Your task to perform on an android device: make emails show in primary in the gmail app Image 0: 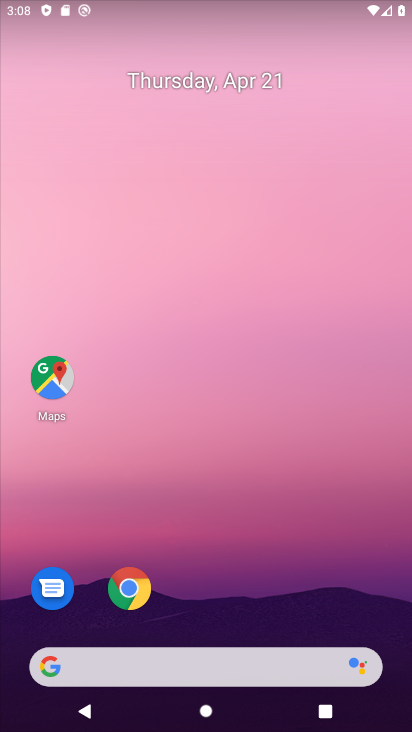
Step 0: drag from (245, 667) to (292, 43)
Your task to perform on an android device: make emails show in primary in the gmail app Image 1: 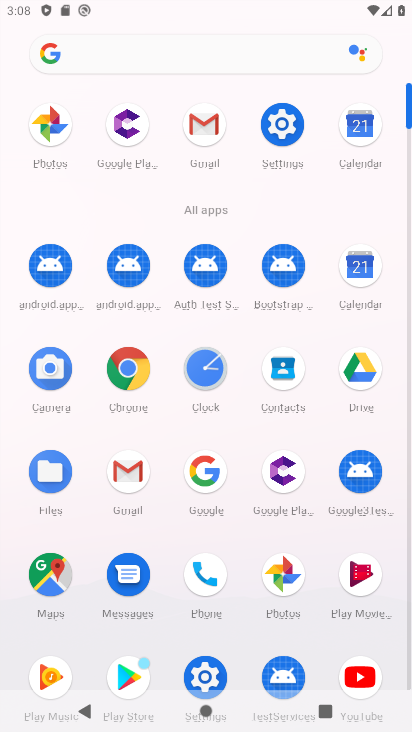
Step 1: click (118, 475)
Your task to perform on an android device: make emails show in primary in the gmail app Image 2: 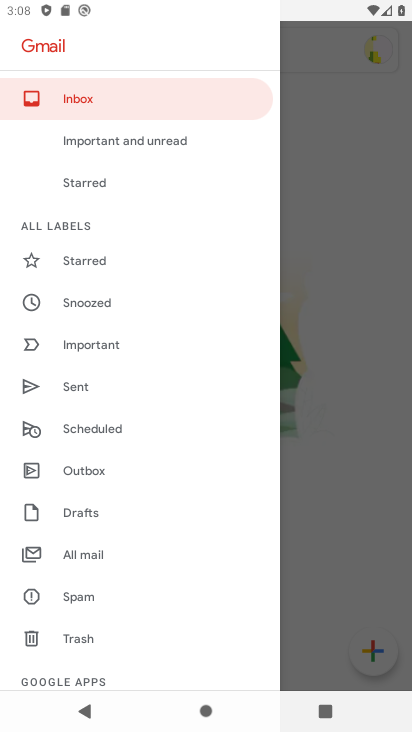
Step 2: drag from (60, 640) to (93, 41)
Your task to perform on an android device: make emails show in primary in the gmail app Image 3: 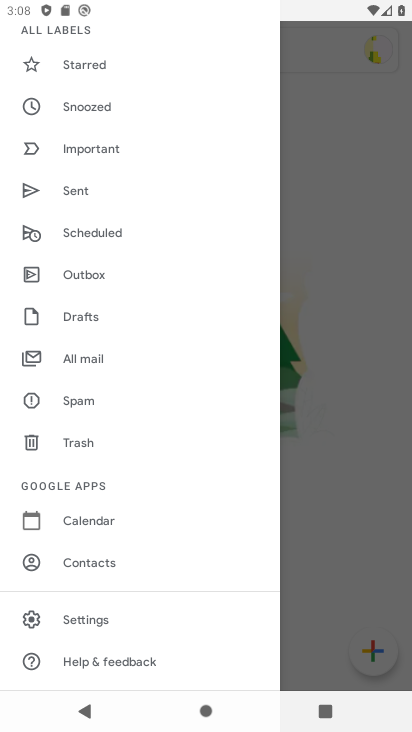
Step 3: click (99, 618)
Your task to perform on an android device: make emails show in primary in the gmail app Image 4: 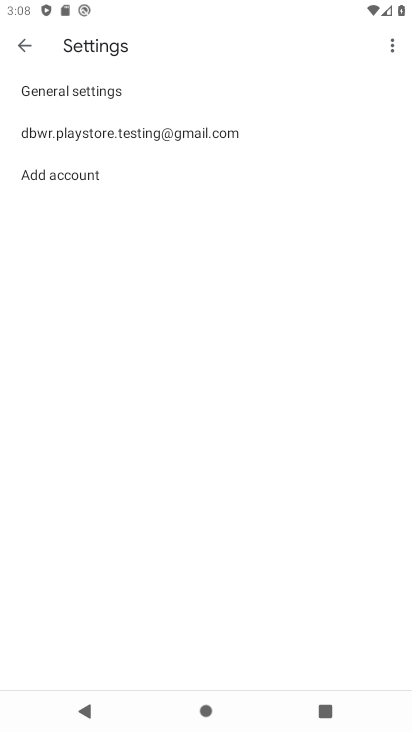
Step 4: click (174, 131)
Your task to perform on an android device: make emails show in primary in the gmail app Image 5: 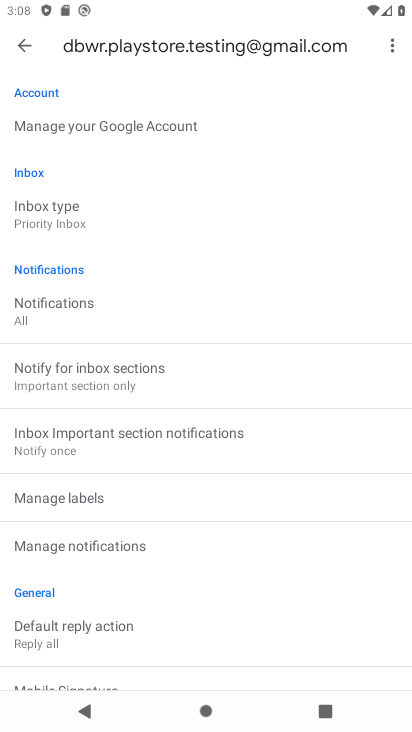
Step 5: click (56, 222)
Your task to perform on an android device: make emails show in primary in the gmail app Image 6: 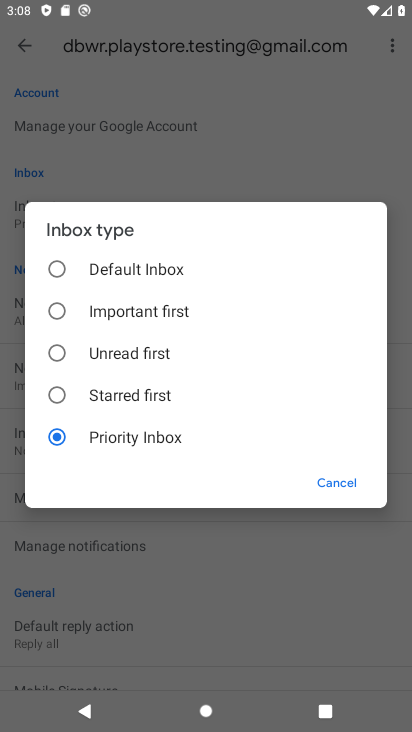
Step 6: click (354, 476)
Your task to perform on an android device: make emails show in primary in the gmail app Image 7: 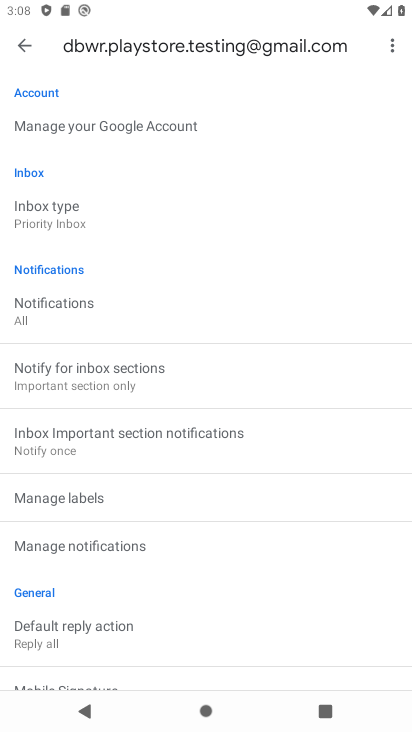
Step 7: task complete